Your task to perform on an android device: Go to Google Image 0: 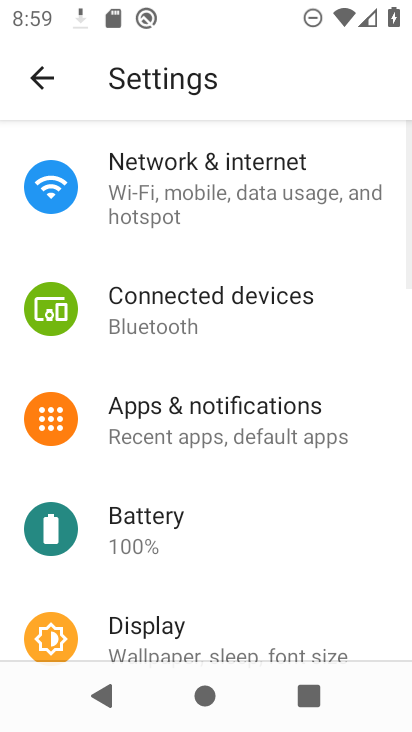
Step 0: press home button
Your task to perform on an android device: Go to Google Image 1: 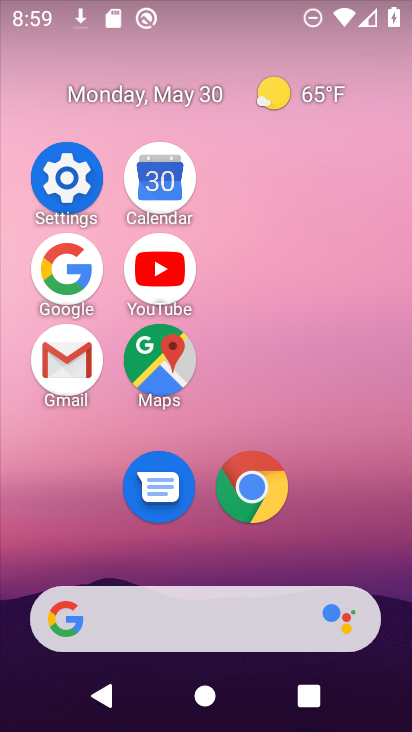
Step 1: click (81, 261)
Your task to perform on an android device: Go to Google Image 2: 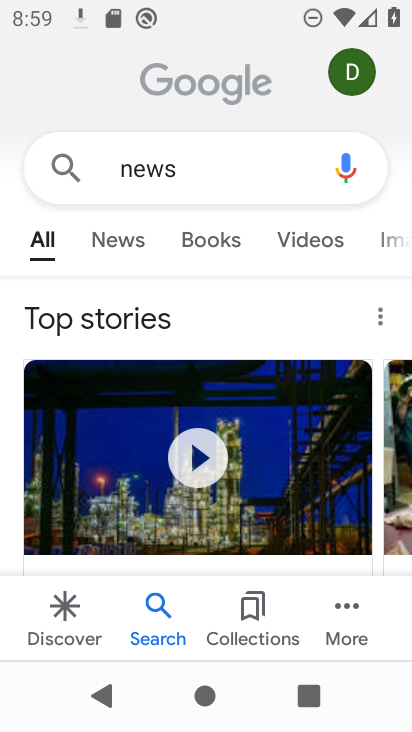
Step 2: task complete